Your task to perform on an android device: Check the news Image 0: 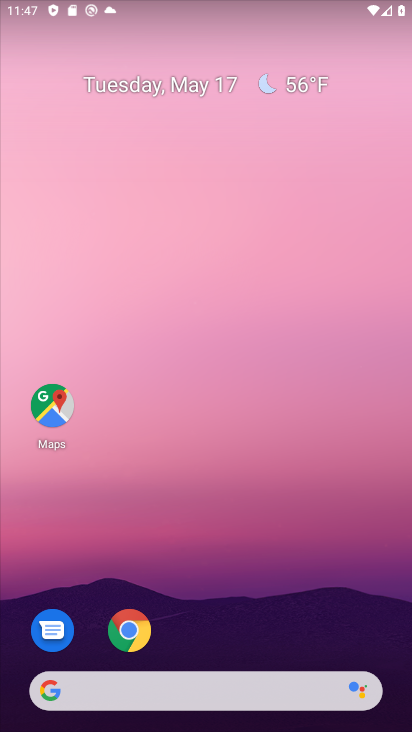
Step 0: drag from (3, 288) to (271, 245)
Your task to perform on an android device: Check the news Image 1: 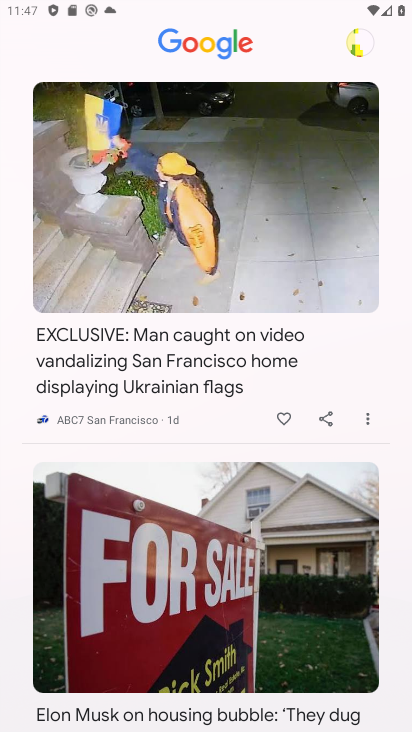
Step 1: task complete